Your task to perform on an android device: Empty the shopping cart on bestbuy. Search for "usb-a to usb-b" on bestbuy, select the first entry, add it to the cart, then select checkout. Image 0: 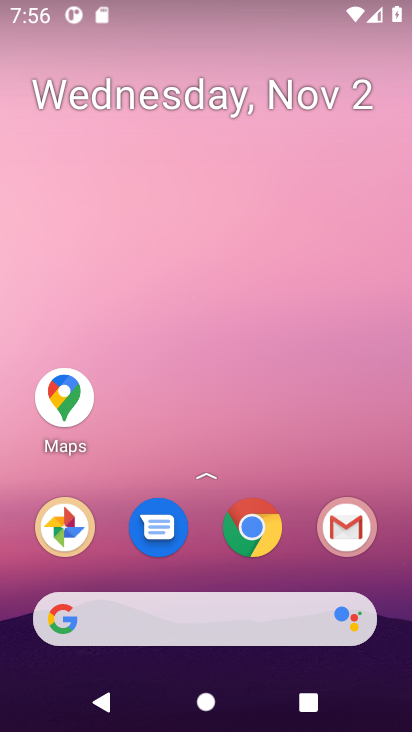
Step 0: click (248, 530)
Your task to perform on an android device: Empty the shopping cart on bestbuy. Search for "usb-a to usb-b" on bestbuy, select the first entry, add it to the cart, then select checkout. Image 1: 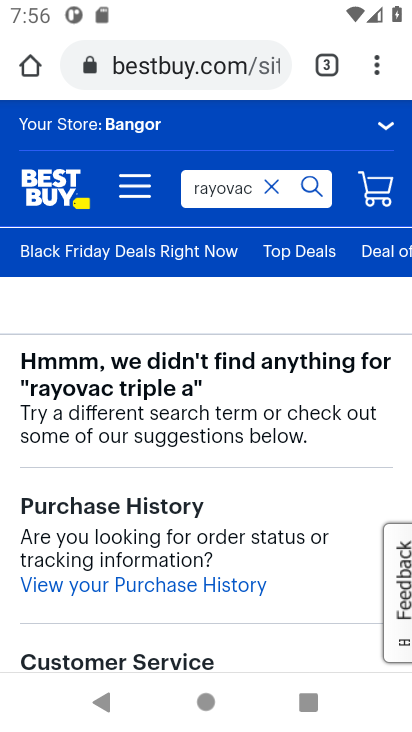
Step 1: click (372, 200)
Your task to perform on an android device: Empty the shopping cart on bestbuy. Search for "usb-a to usb-b" on bestbuy, select the first entry, add it to the cart, then select checkout. Image 2: 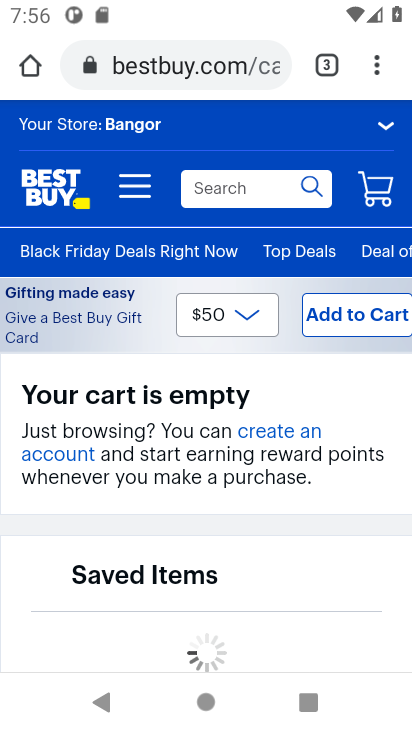
Step 2: click (245, 188)
Your task to perform on an android device: Empty the shopping cart on bestbuy. Search for "usb-a to usb-b" on bestbuy, select the first entry, add it to the cart, then select checkout. Image 3: 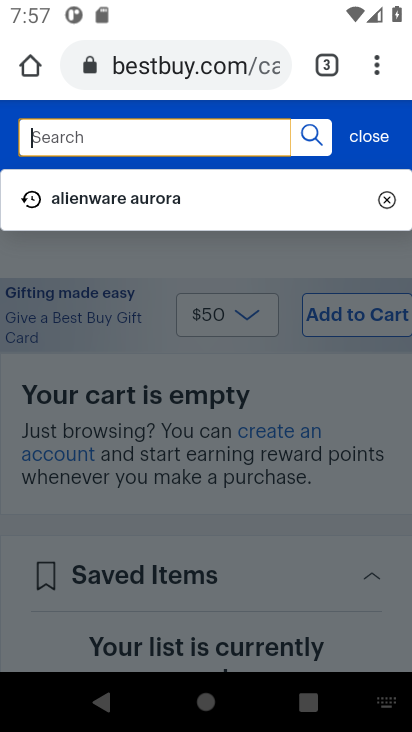
Step 3: type "usb-a to usb-b"
Your task to perform on an android device: Empty the shopping cart on bestbuy. Search for "usb-a to usb-b" on bestbuy, select the first entry, add it to the cart, then select checkout. Image 4: 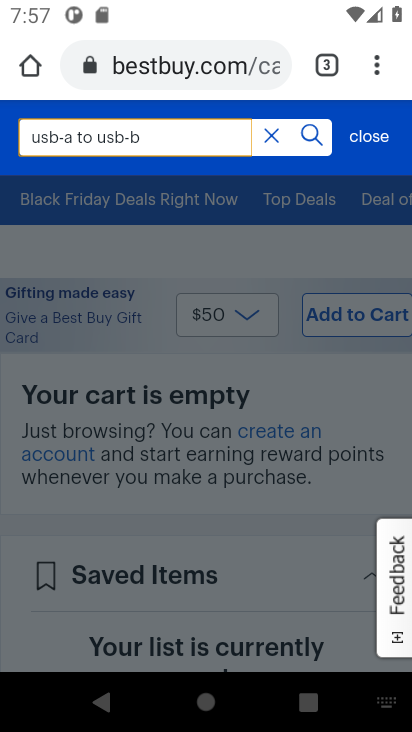
Step 4: press enter
Your task to perform on an android device: Empty the shopping cart on bestbuy. Search for "usb-a to usb-b" on bestbuy, select the first entry, add it to the cart, then select checkout. Image 5: 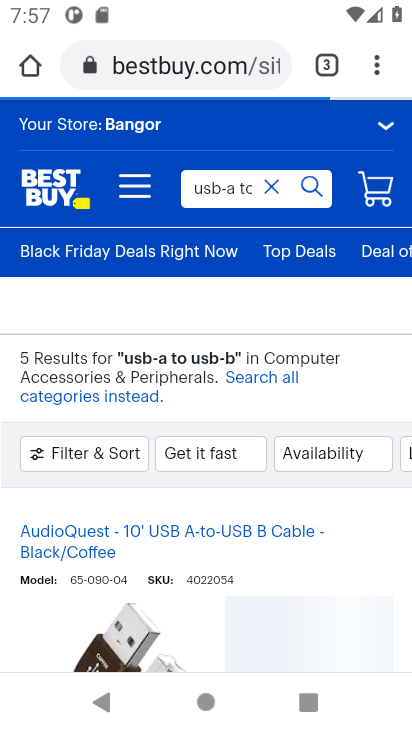
Step 5: drag from (338, 562) to (293, 289)
Your task to perform on an android device: Empty the shopping cart on bestbuy. Search for "usb-a to usb-b" on bestbuy, select the first entry, add it to the cart, then select checkout. Image 6: 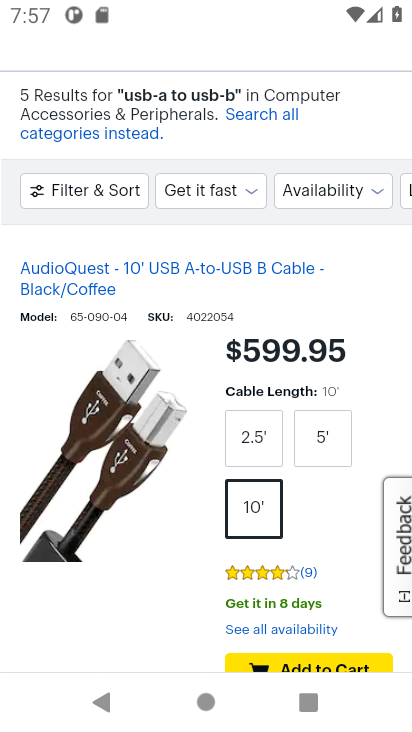
Step 6: click (163, 492)
Your task to perform on an android device: Empty the shopping cart on bestbuy. Search for "usb-a to usb-b" on bestbuy, select the first entry, add it to the cart, then select checkout. Image 7: 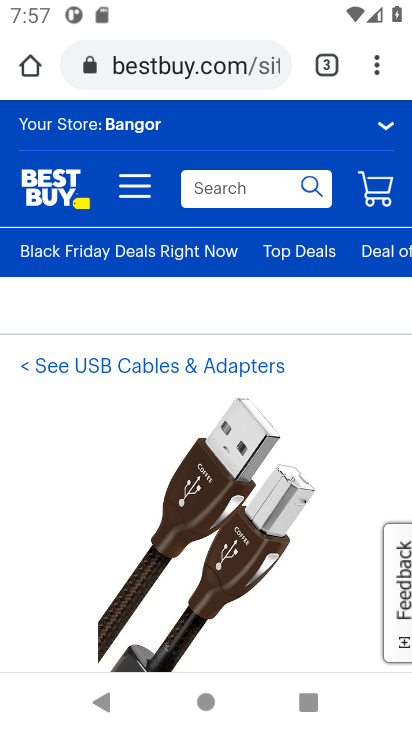
Step 7: drag from (368, 495) to (327, 60)
Your task to perform on an android device: Empty the shopping cart on bestbuy. Search for "usb-a to usb-b" on bestbuy, select the first entry, add it to the cart, then select checkout. Image 8: 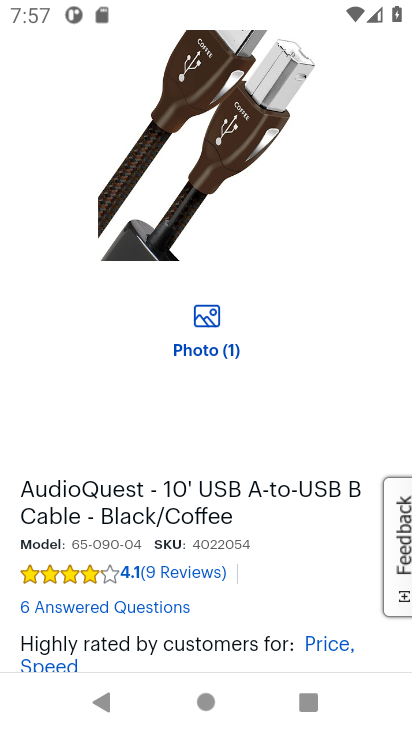
Step 8: drag from (271, 579) to (178, 29)
Your task to perform on an android device: Empty the shopping cart on bestbuy. Search for "usb-a to usb-b" on bestbuy, select the first entry, add it to the cart, then select checkout. Image 9: 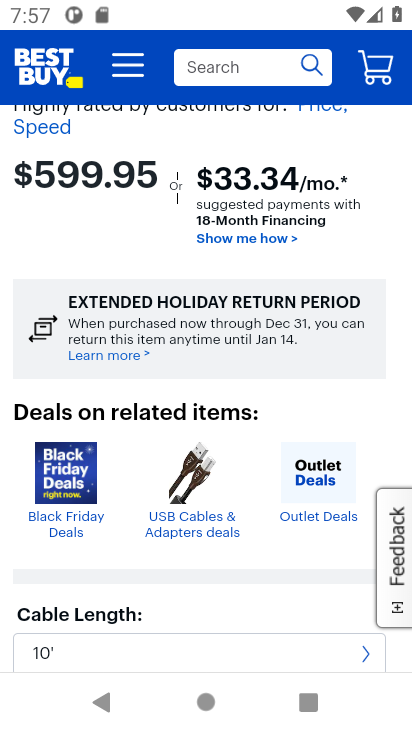
Step 9: drag from (195, 571) to (165, 20)
Your task to perform on an android device: Empty the shopping cart on bestbuy. Search for "usb-a to usb-b" on bestbuy, select the first entry, add it to the cart, then select checkout. Image 10: 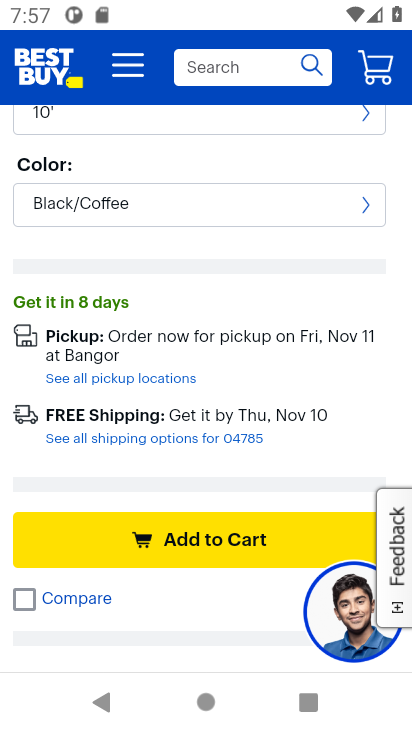
Step 10: click (173, 541)
Your task to perform on an android device: Empty the shopping cart on bestbuy. Search for "usb-a to usb-b" on bestbuy, select the first entry, add it to the cart, then select checkout. Image 11: 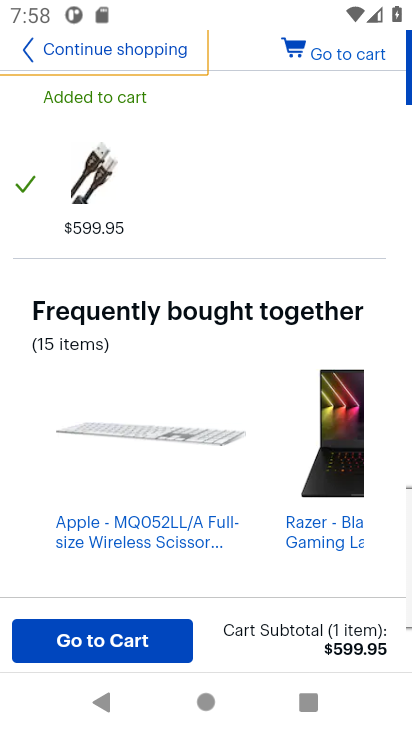
Step 11: click (113, 648)
Your task to perform on an android device: Empty the shopping cart on bestbuy. Search for "usb-a to usb-b" on bestbuy, select the first entry, add it to the cart, then select checkout. Image 12: 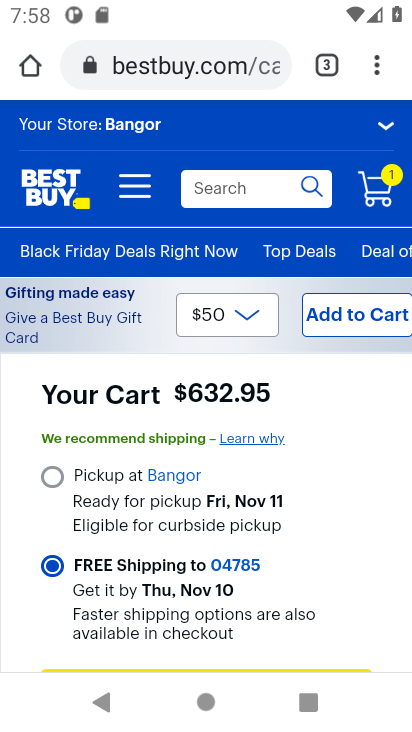
Step 12: drag from (336, 484) to (311, 376)
Your task to perform on an android device: Empty the shopping cart on bestbuy. Search for "usb-a to usb-b" on bestbuy, select the first entry, add it to the cart, then select checkout. Image 13: 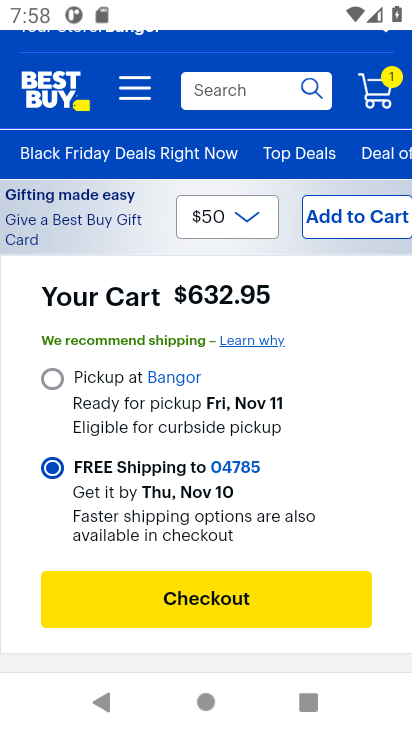
Step 13: click (233, 607)
Your task to perform on an android device: Empty the shopping cart on bestbuy. Search for "usb-a to usb-b" on bestbuy, select the first entry, add it to the cart, then select checkout. Image 14: 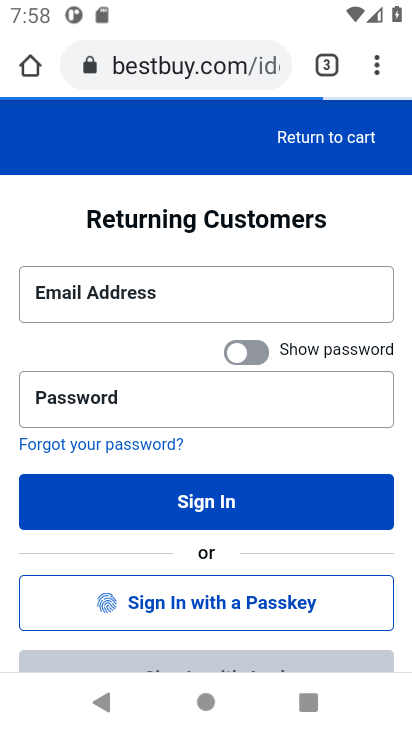
Step 14: task complete